Your task to perform on an android device: move an email to a new category in the gmail app Image 0: 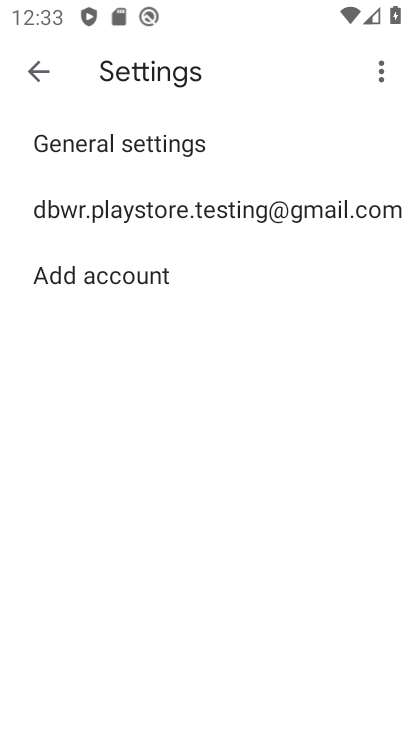
Step 0: task complete